Your task to perform on an android device: Open Google Image 0: 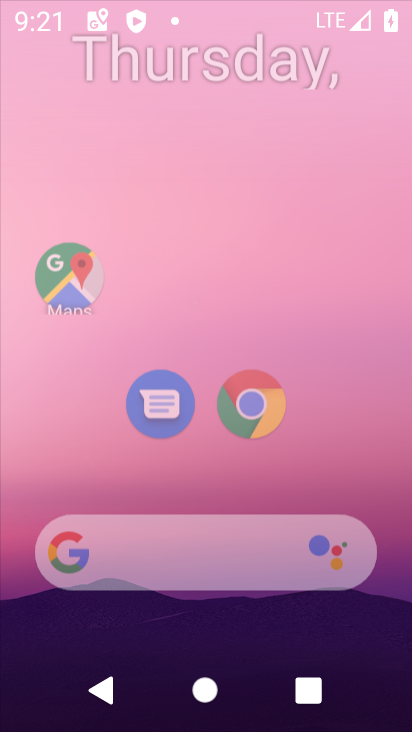
Step 0: click (254, 133)
Your task to perform on an android device: Open Google Image 1: 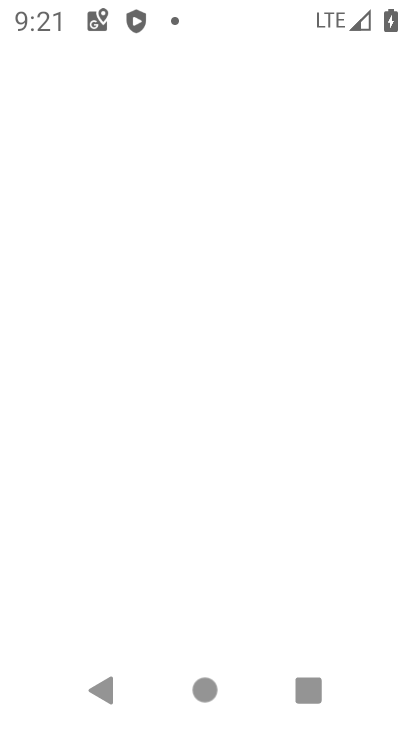
Step 1: press home button
Your task to perform on an android device: Open Google Image 2: 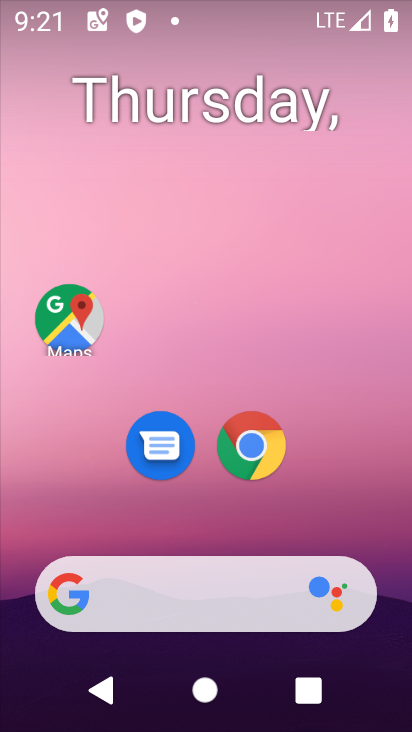
Step 2: drag from (76, 529) to (236, 126)
Your task to perform on an android device: Open Google Image 3: 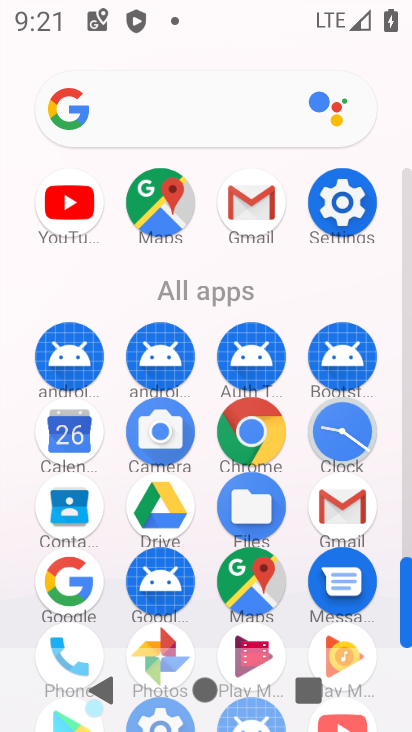
Step 3: drag from (246, 564) to (323, 326)
Your task to perform on an android device: Open Google Image 4: 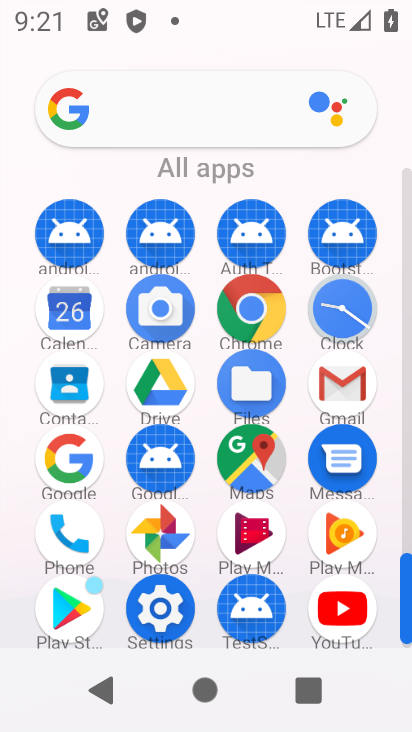
Step 4: click (86, 468)
Your task to perform on an android device: Open Google Image 5: 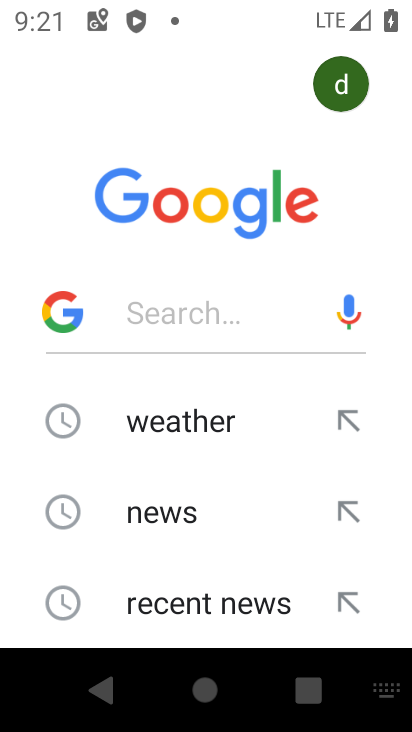
Step 5: task complete